Your task to perform on an android device: search for starred emails in the gmail app Image 0: 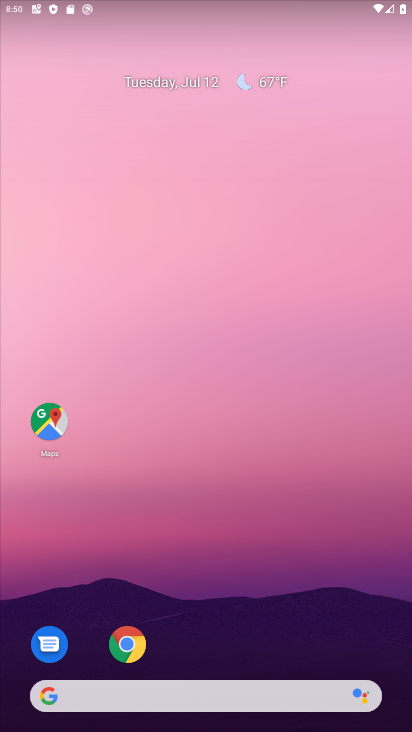
Step 0: drag from (150, 645) to (262, 96)
Your task to perform on an android device: search for starred emails in the gmail app Image 1: 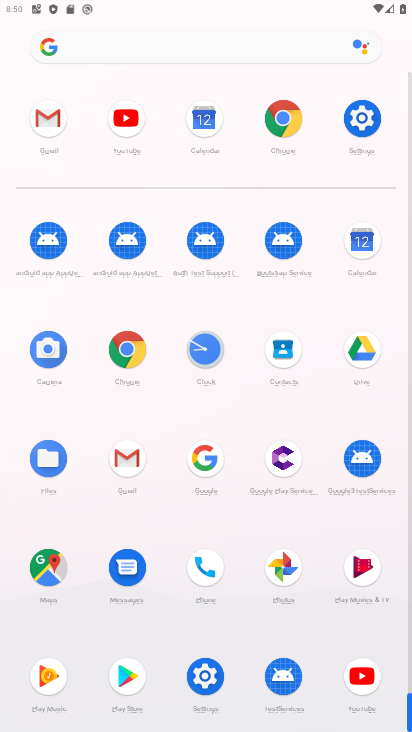
Step 1: click (128, 460)
Your task to perform on an android device: search for starred emails in the gmail app Image 2: 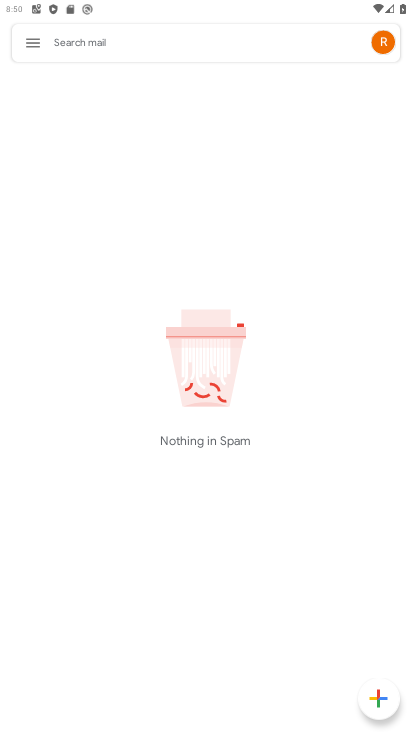
Step 2: drag from (222, 510) to (313, 198)
Your task to perform on an android device: search for starred emails in the gmail app Image 3: 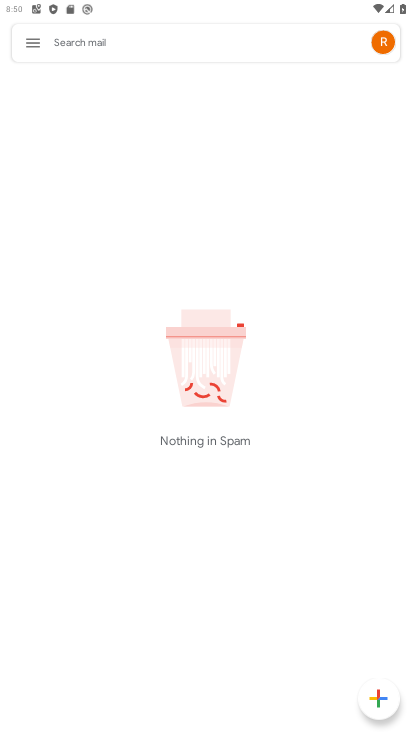
Step 3: click (35, 49)
Your task to perform on an android device: search for starred emails in the gmail app Image 4: 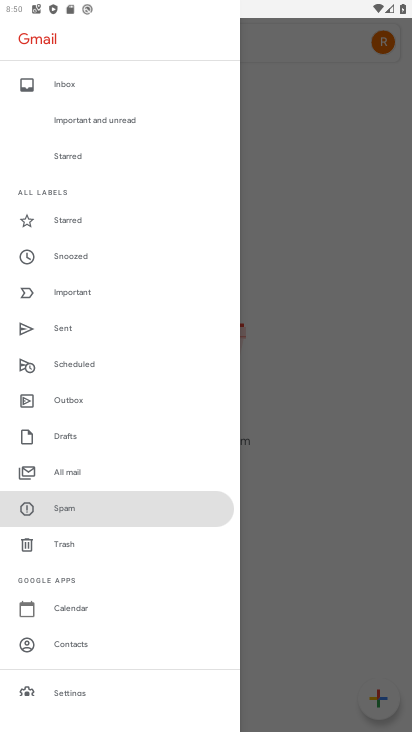
Step 4: click (67, 224)
Your task to perform on an android device: search for starred emails in the gmail app Image 5: 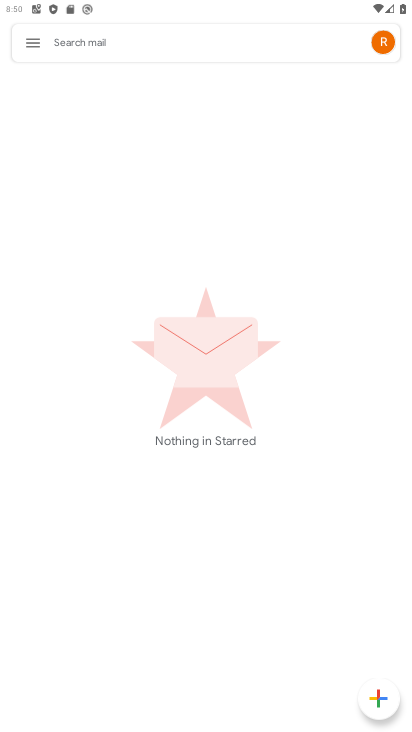
Step 5: task complete